Your task to perform on an android device: toggle pop-ups in chrome Image 0: 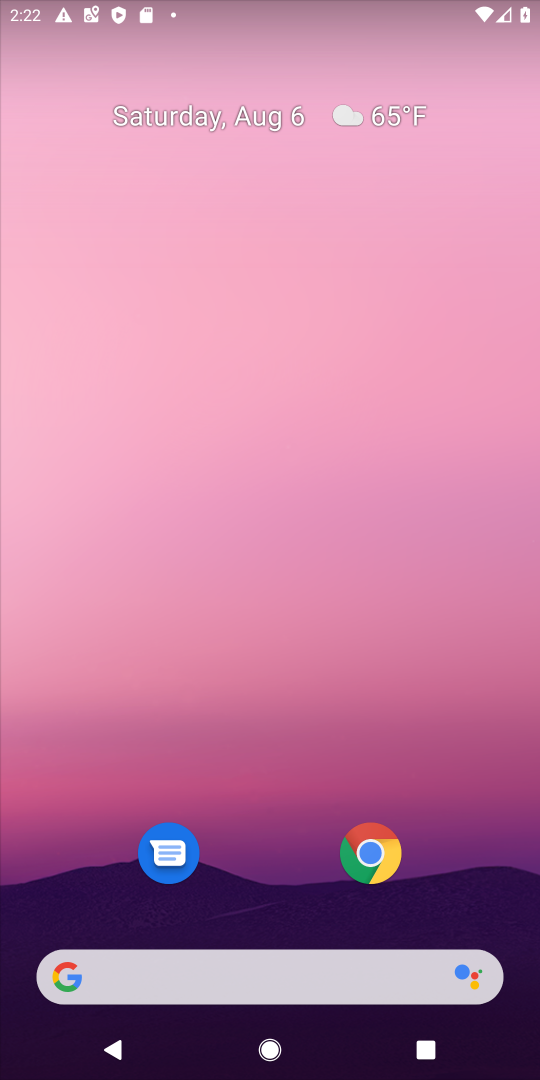
Step 0: click (365, 853)
Your task to perform on an android device: toggle pop-ups in chrome Image 1: 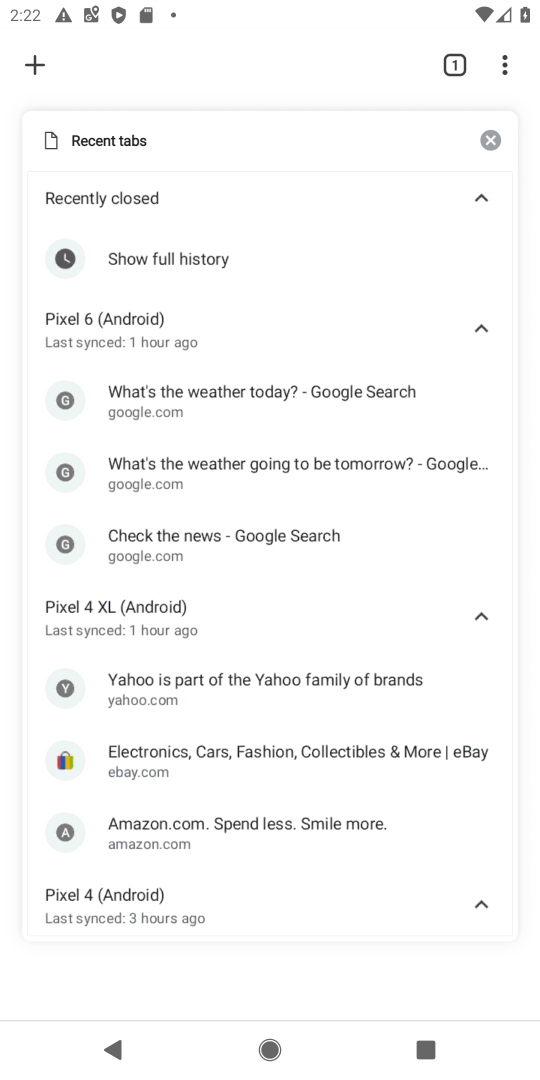
Step 1: drag from (497, 63) to (329, 238)
Your task to perform on an android device: toggle pop-ups in chrome Image 2: 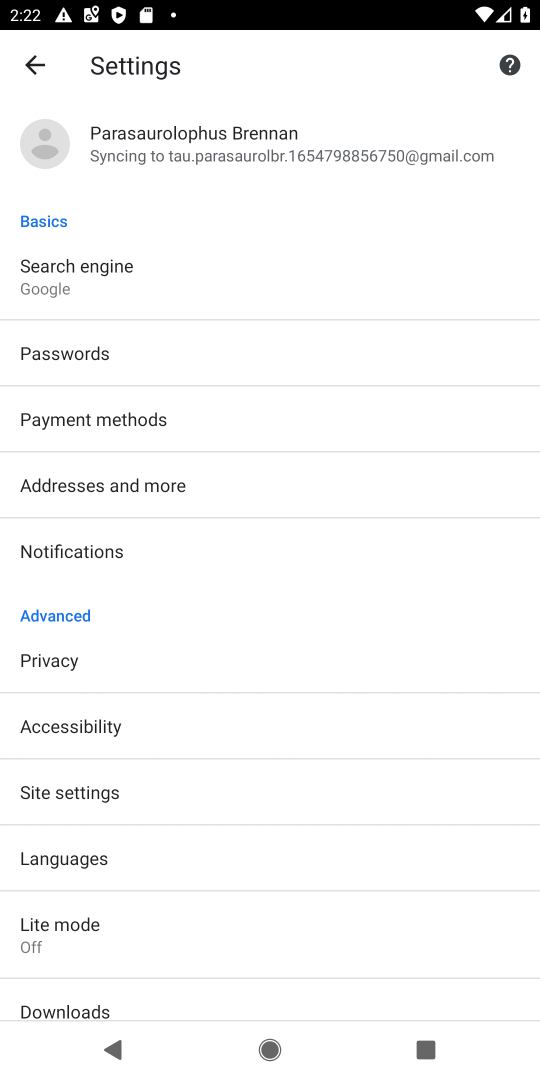
Step 2: click (184, 801)
Your task to perform on an android device: toggle pop-ups in chrome Image 3: 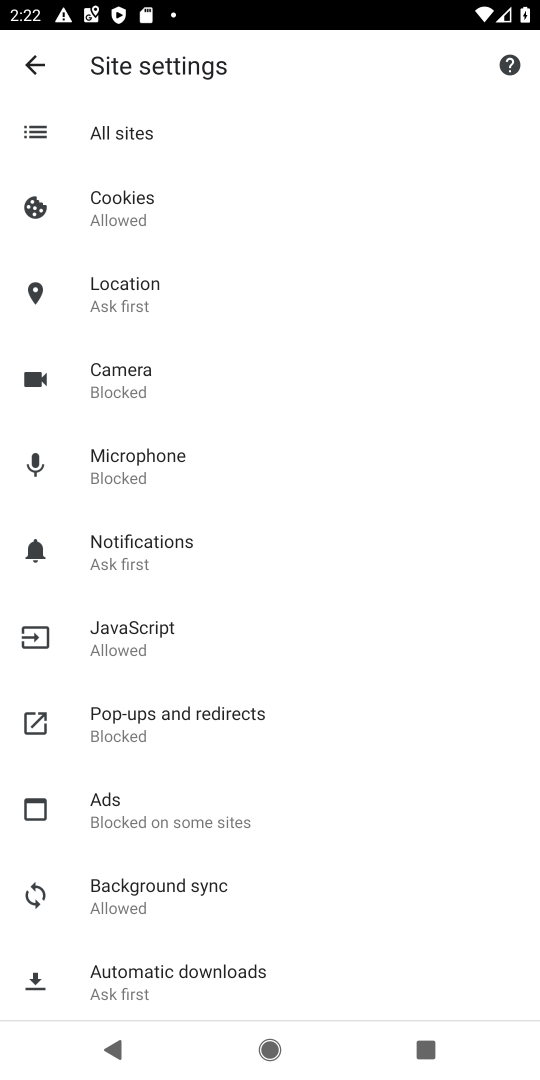
Step 3: click (199, 717)
Your task to perform on an android device: toggle pop-ups in chrome Image 4: 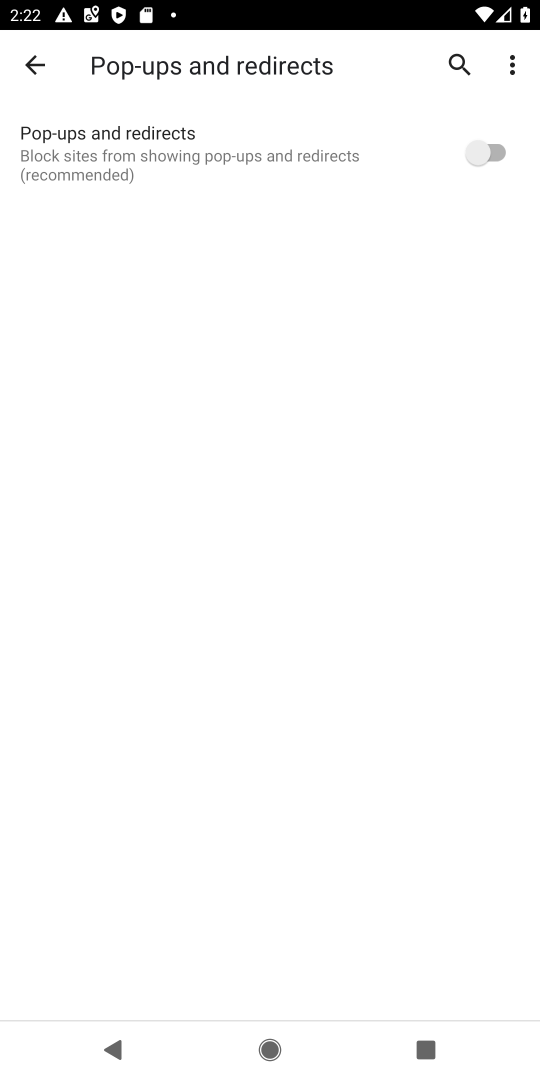
Step 4: click (485, 160)
Your task to perform on an android device: toggle pop-ups in chrome Image 5: 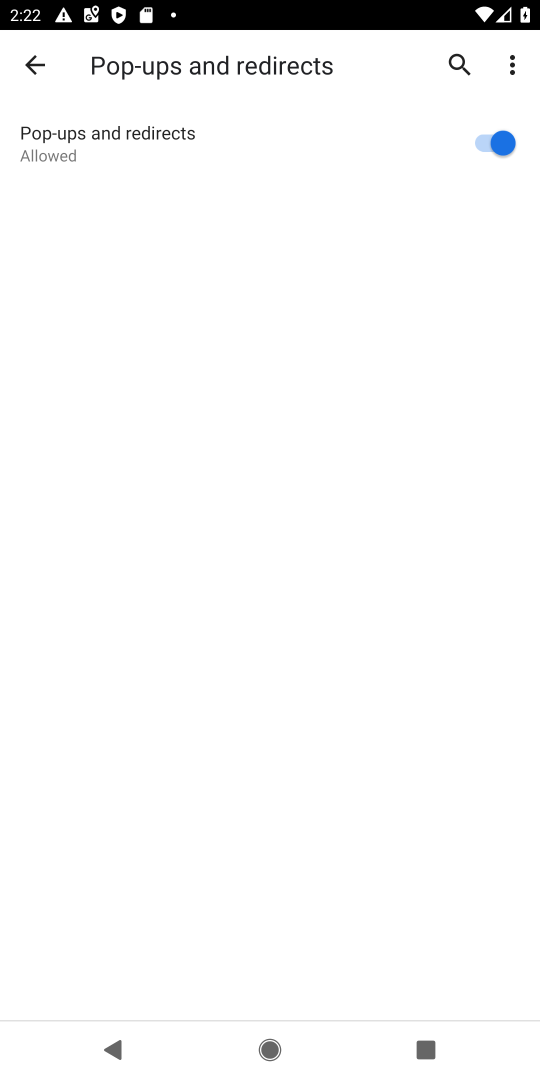
Step 5: task complete